Your task to perform on an android device: Show me the alarms in the clock app Image 0: 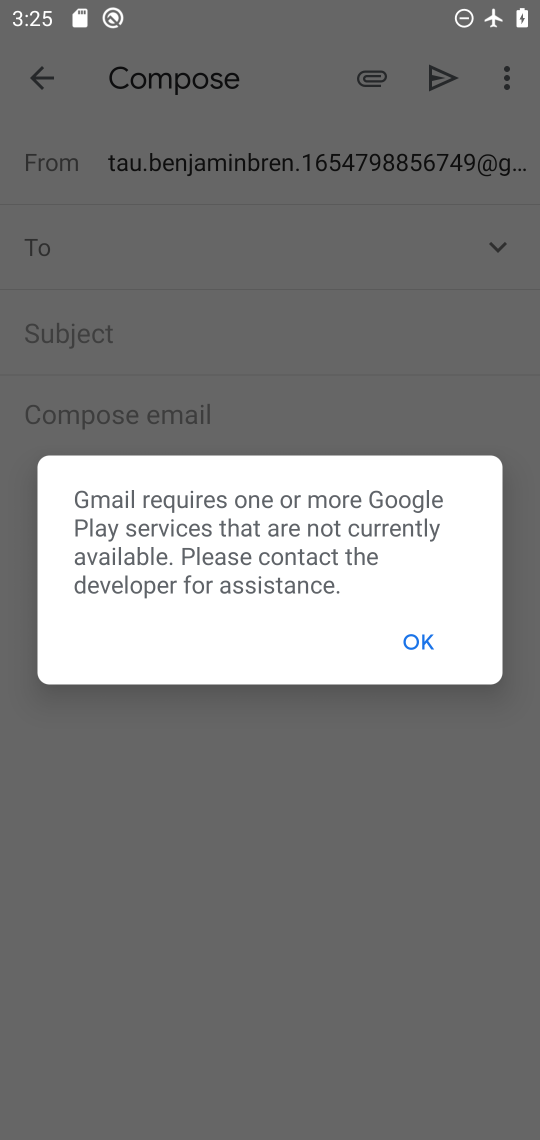
Step 0: press home button
Your task to perform on an android device: Show me the alarms in the clock app Image 1: 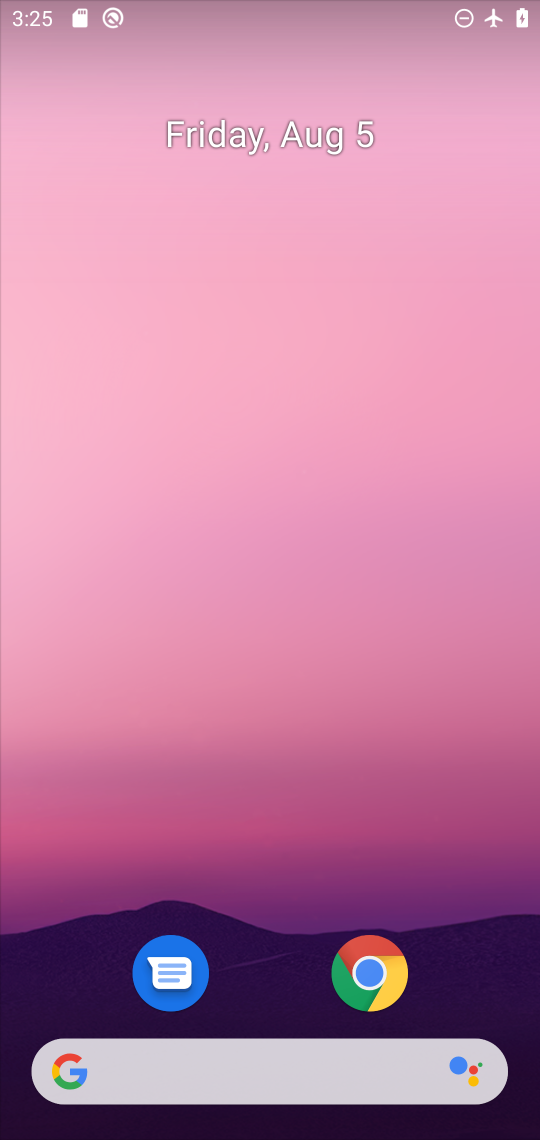
Step 1: drag from (246, 1030) to (120, 127)
Your task to perform on an android device: Show me the alarms in the clock app Image 2: 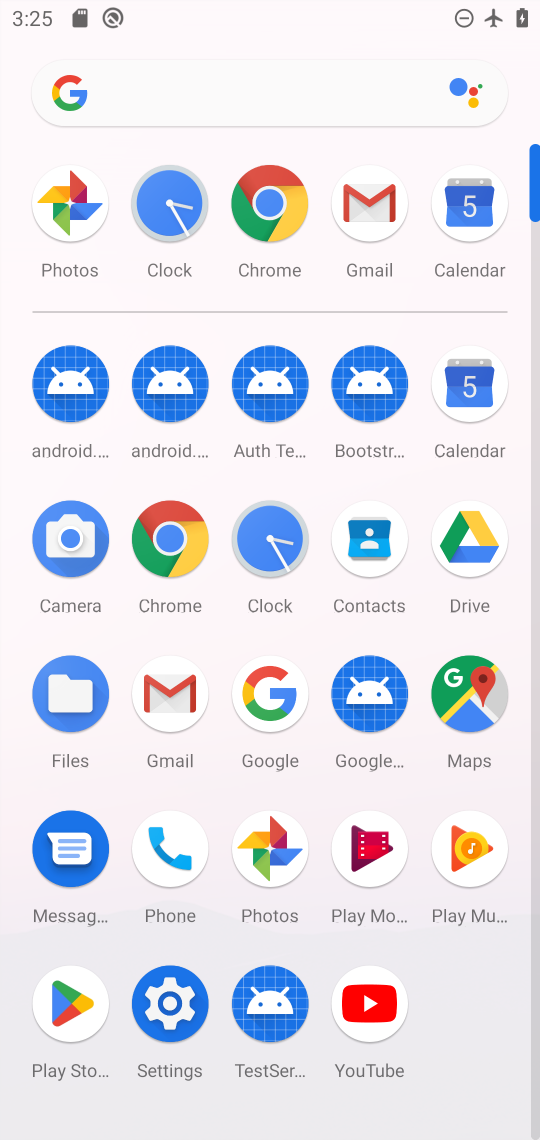
Step 2: click (262, 537)
Your task to perform on an android device: Show me the alarms in the clock app Image 3: 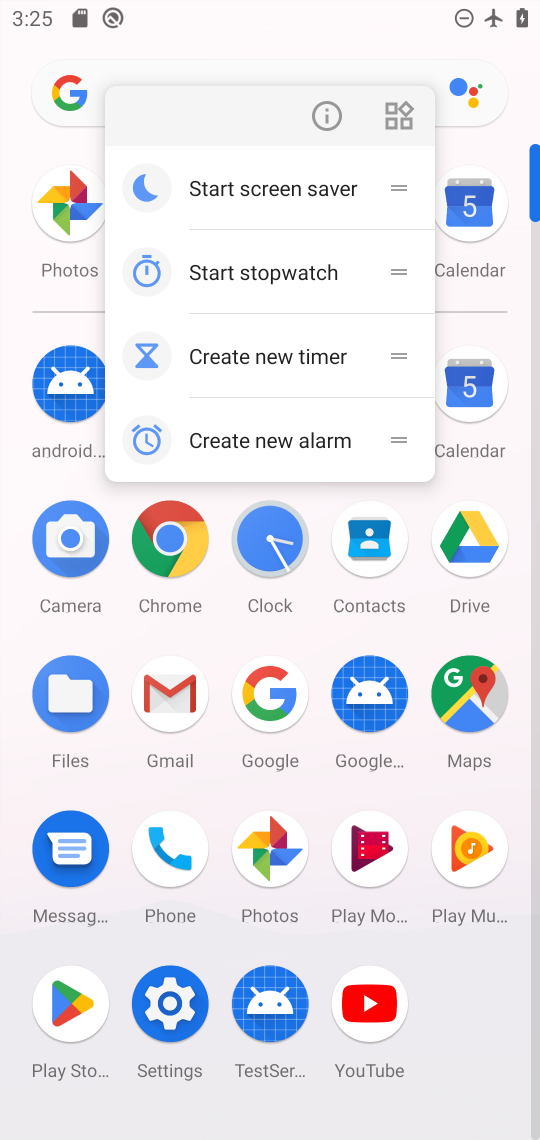
Step 3: click (262, 537)
Your task to perform on an android device: Show me the alarms in the clock app Image 4: 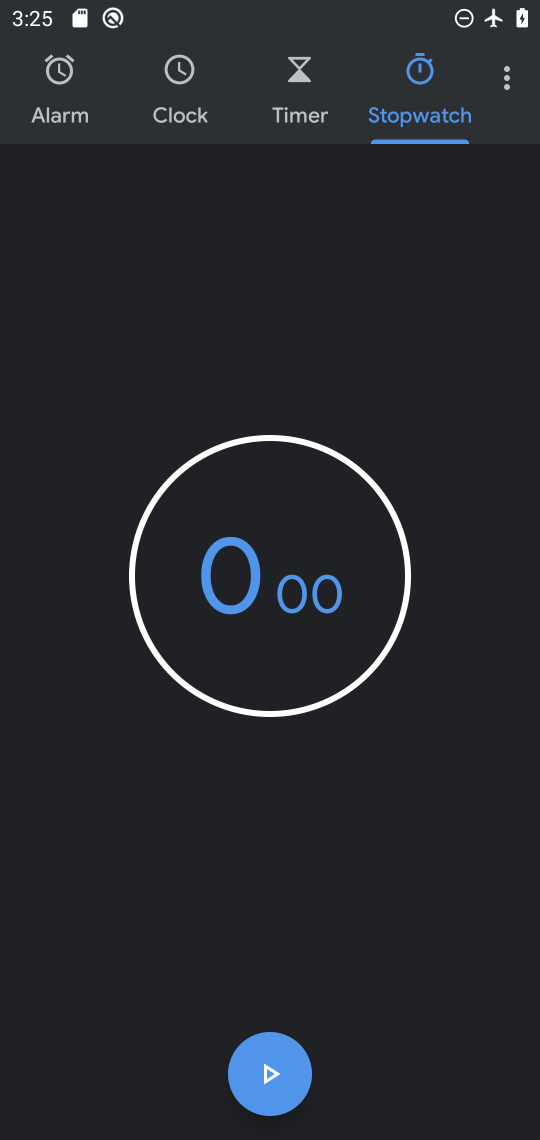
Step 4: click (38, 120)
Your task to perform on an android device: Show me the alarms in the clock app Image 5: 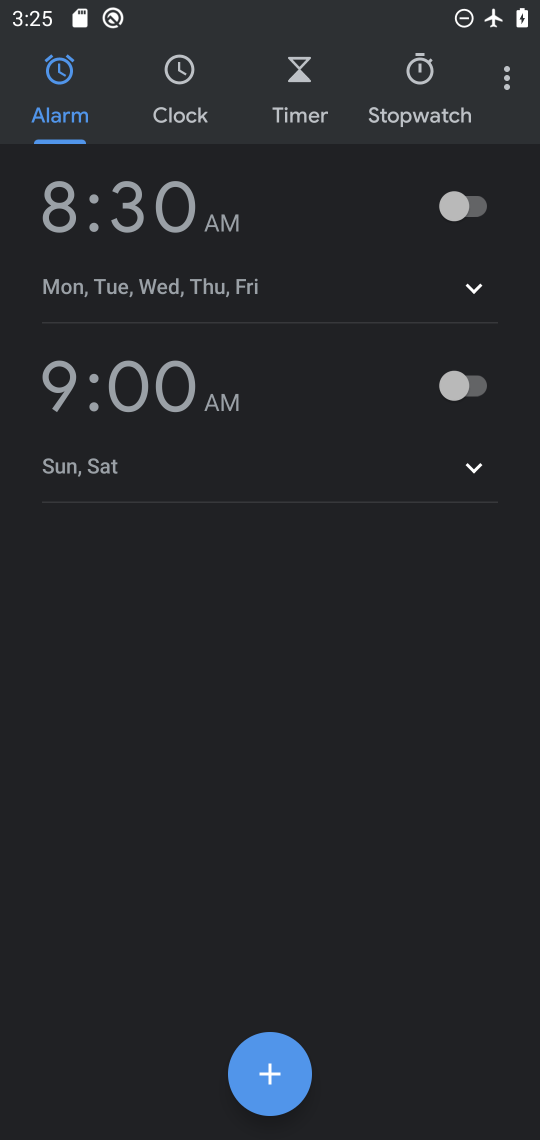
Step 5: task complete